Your task to perform on an android device: Go to ESPN.com Image 0: 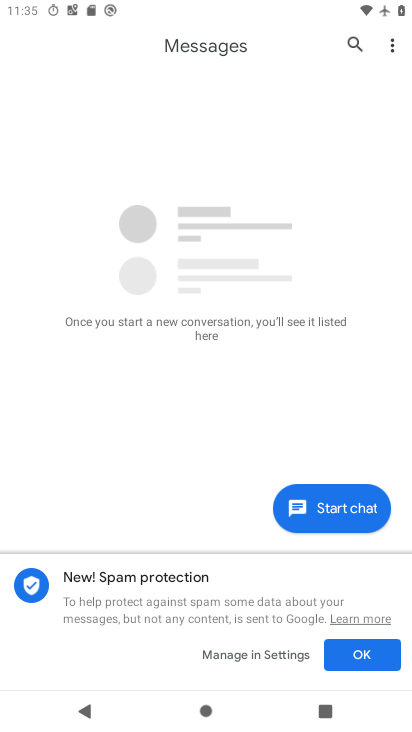
Step 0: press home button
Your task to perform on an android device: Go to ESPN.com Image 1: 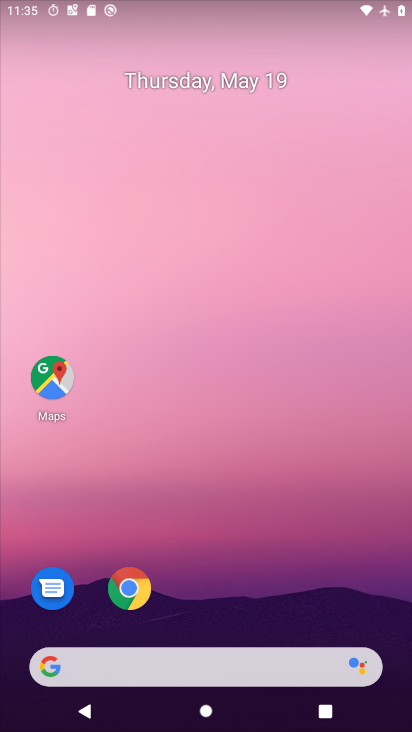
Step 1: click (137, 599)
Your task to perform on an android device: Go to ESPN.com Image 2: 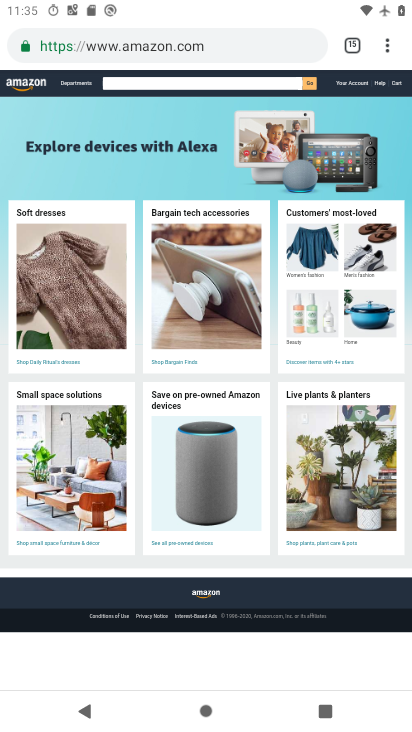
Step 2: drag from (386, 46) to (284, 98)
Your task to perform on an android device: Go to ESPN.com Image 3: 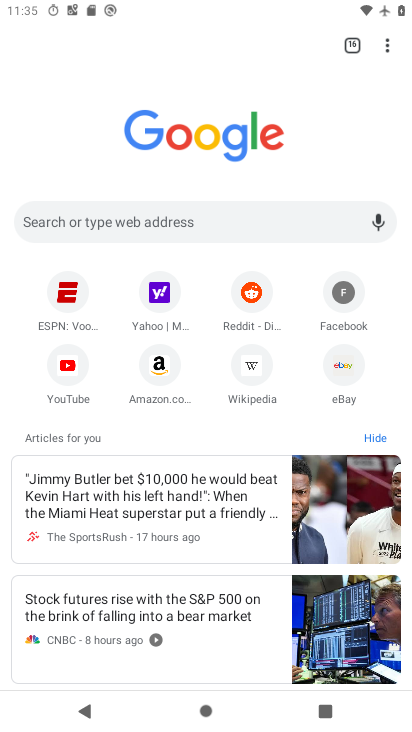
Step 3: click (70, 295)
Your task to perform on an android device: Go to ESPN.com Image 4: 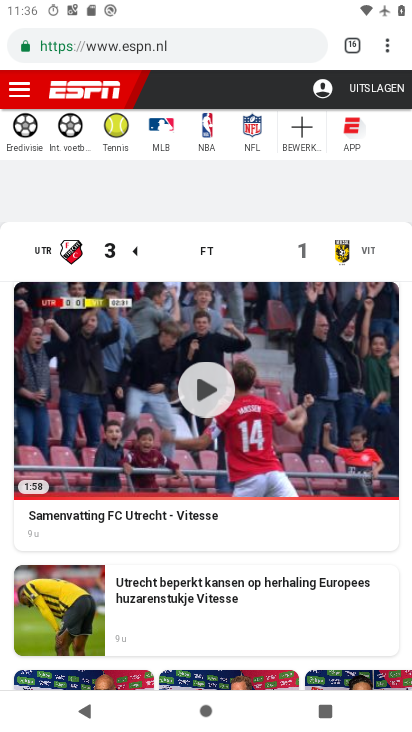
Step 4: task complete